Your task to perform on an android device: check data usage Image 0: 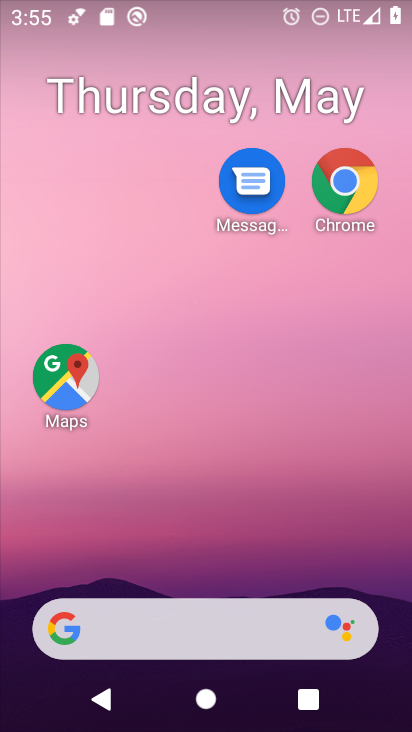
Step 0: drag from (285, 649) to (328, 3)
Your task to perform on an android device: check data usage Image 1: 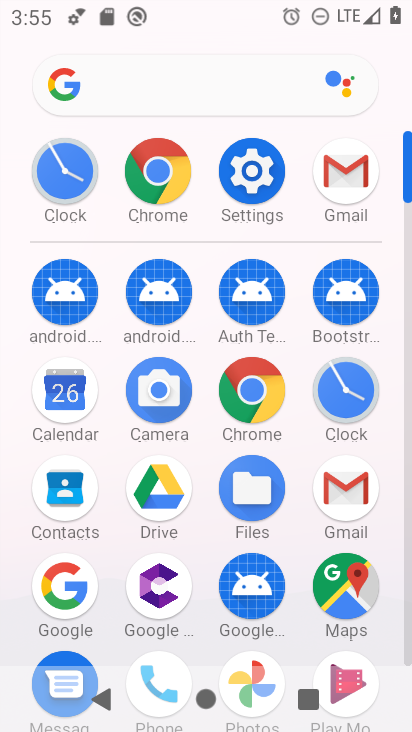
Step 1: click (258, 179)
Your task to perform on an android device: check data usage Image 2: 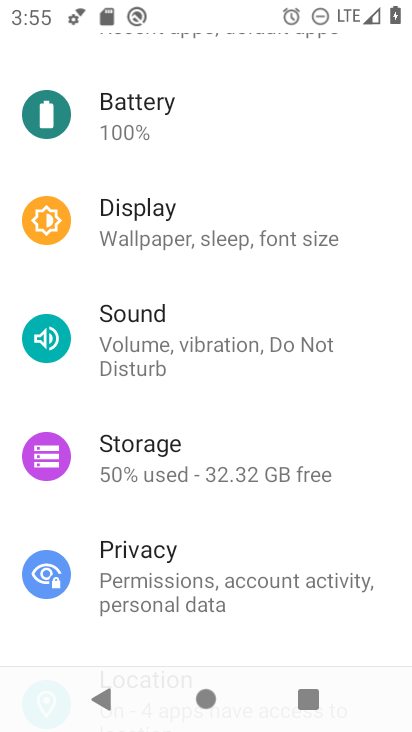
Step 2: drag from (270, 226) to (281, 635)
Your task to perform on an android device: check data usage Image 3: 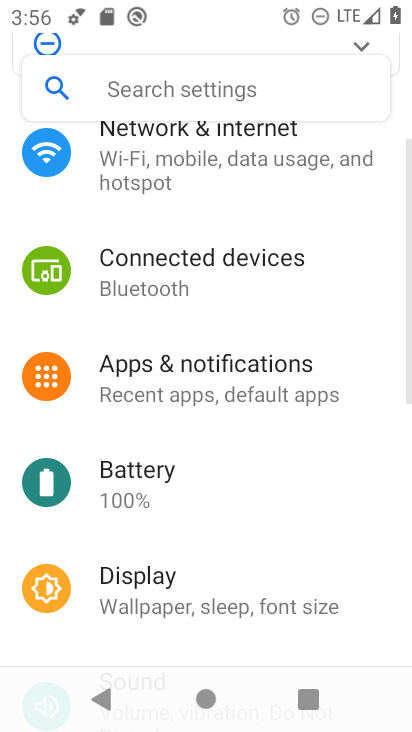
Step 3: drag from (289, 292) to (304, 617)
Your task to perform on an android device: check data usage Image 4: 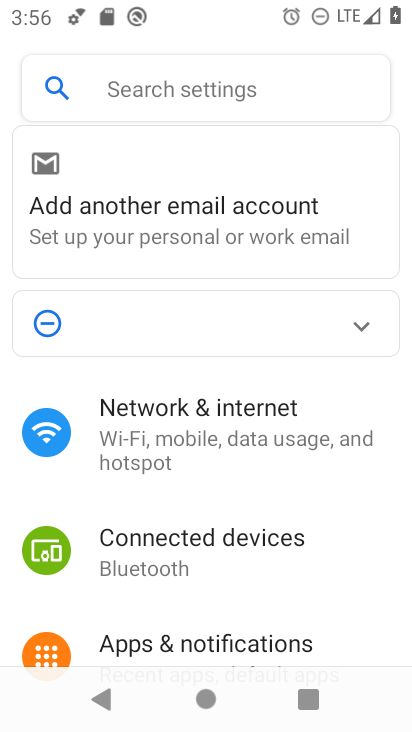
Step 4: click (272, 454)
Your task to perform on an android device: check data usage Image 5: 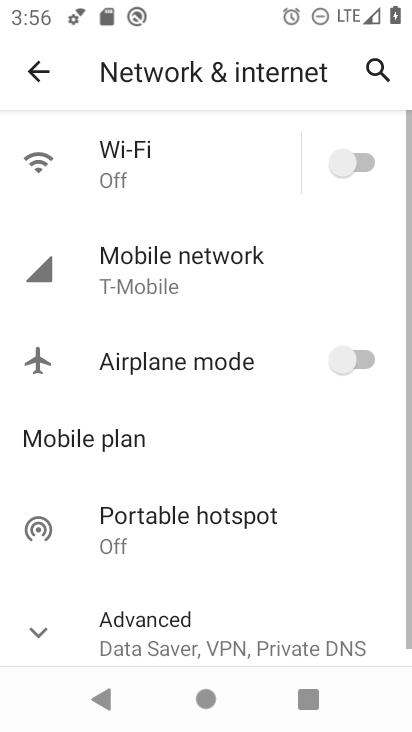
Step 5: drag from (298, 556) to (324, 396)
Your task to perform on an android device: check data usage Image 6: 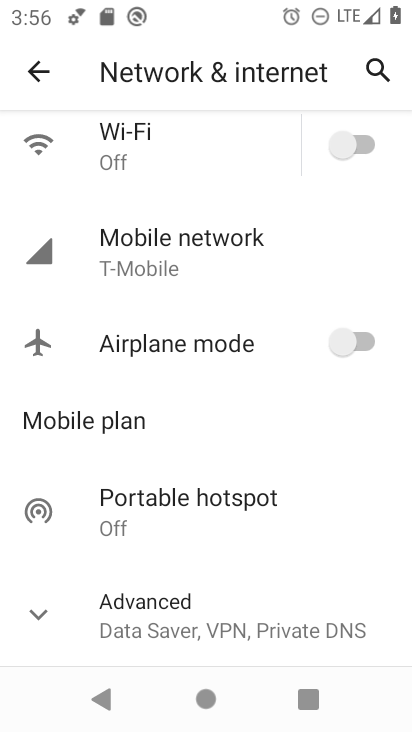
Step 6: click (229, 236)
Your task to perform on an android device: check data usage Image 7: 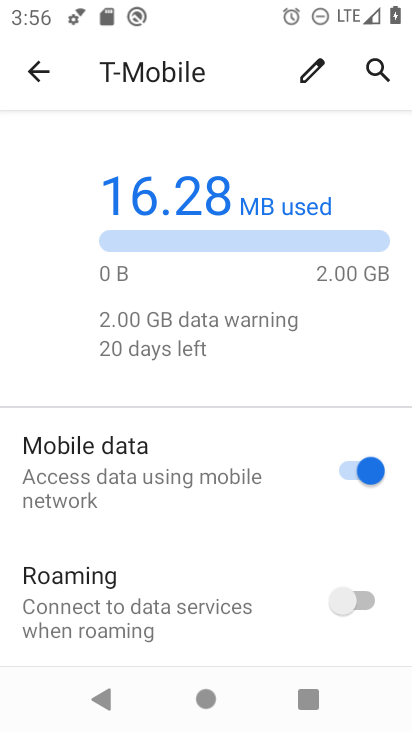
Step 7: drag from (208, 650) to (135, 177)
Your task to perform on an android device: check data usage Image 8: 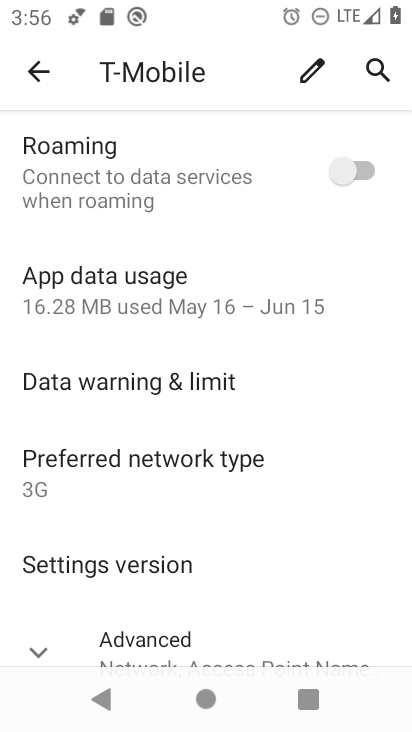
Step 8: click (199, 320)
Your task to perform on an android device: check data usage Image 9: 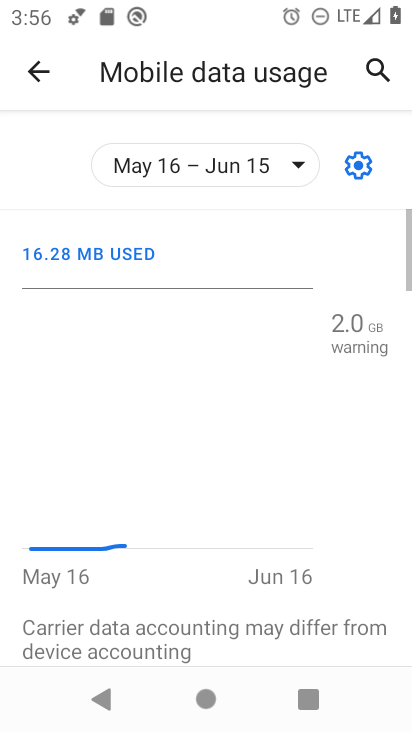
Step 9: task complete